Your task to perform on an android device: check android version Image 0: 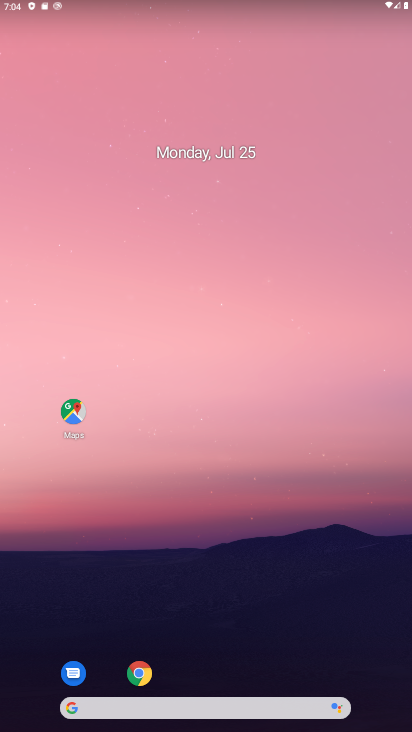
Step 0: drag from (219, 658) to (245, 21)
Your task to perform on an android device: check android version Image 1: 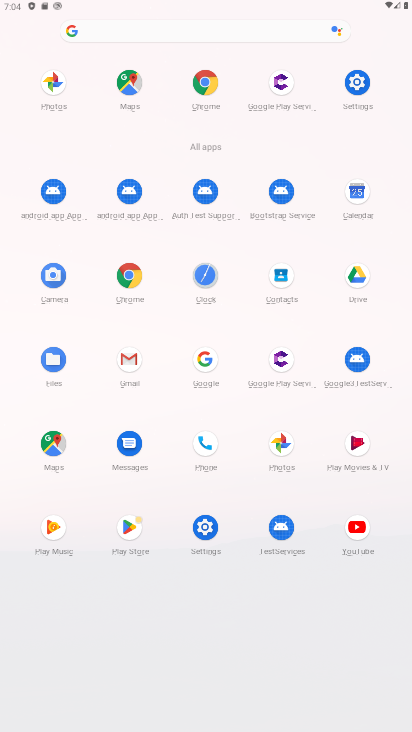
Step 1: click (209, 365)
Your task to perform on an android device: check android version Image 2: 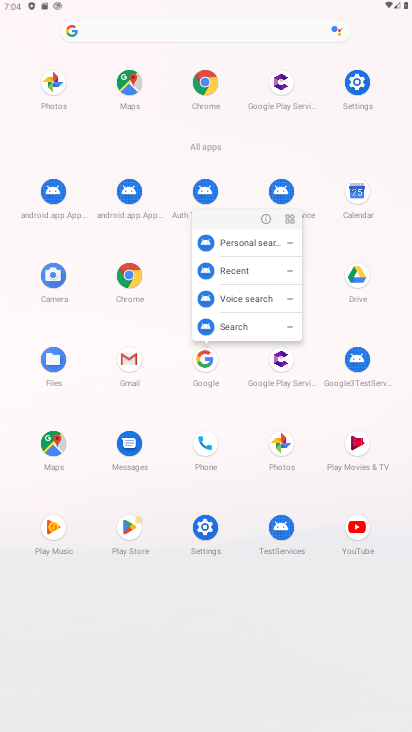
Step 2: click (263, 222)
Your task to perform on an android device: check android version Image 3: 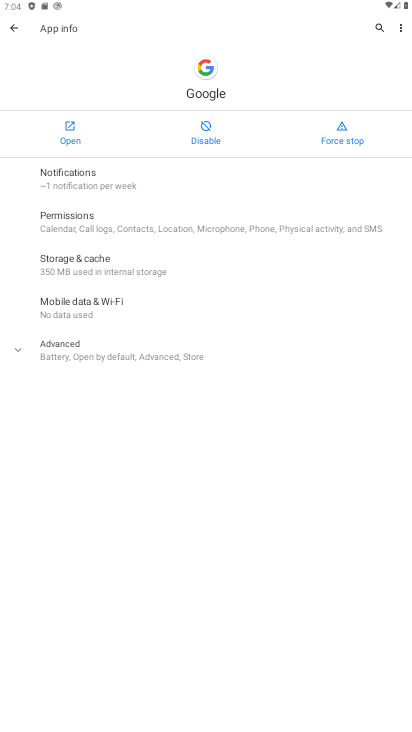
Step 3: click (68, 347)
Your task to perform on an android device: check android version Image 4: 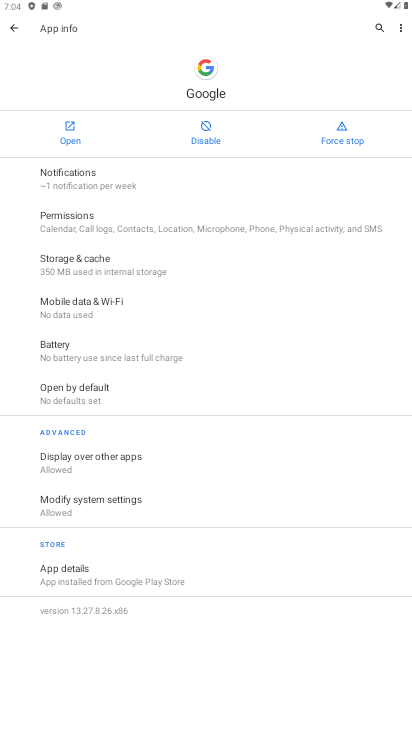
Step 4: task complete